Your task to perform on an android device: Open the calendar and show me this week's events? Image 0: 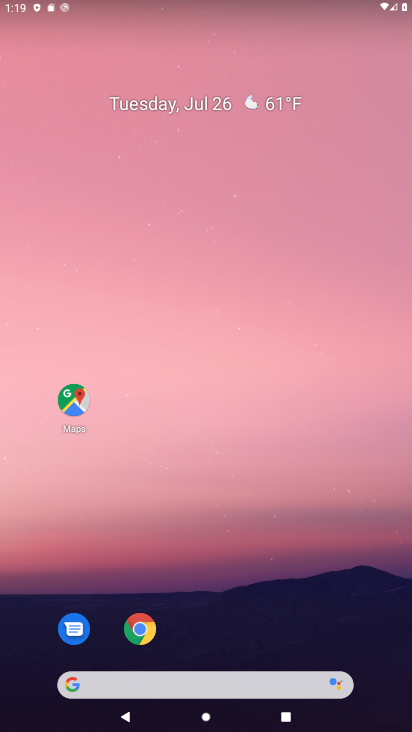
Step 0: click (205, 104)
Your task to perform on an android device: Open the calendar and show me this week's events? Image 1: 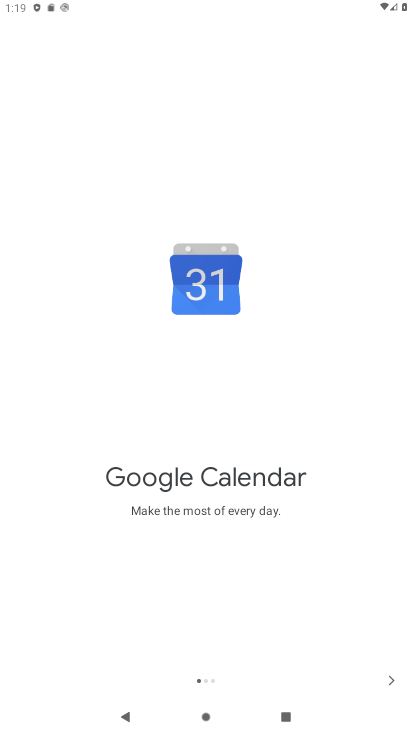
Step 1: click (385, 682)
Your task to perform on an android device: Open the calendar and show me this week's events? Image 2: 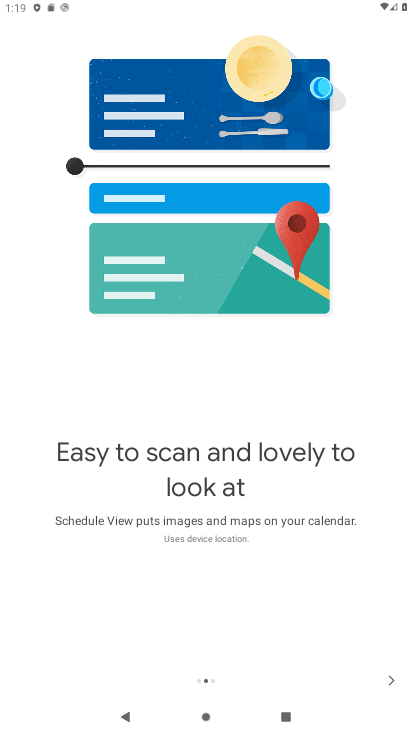
Step 2: click (385, 682)
Your task to perform on an android device: Open the calendar and show me this week's events? Image 3: 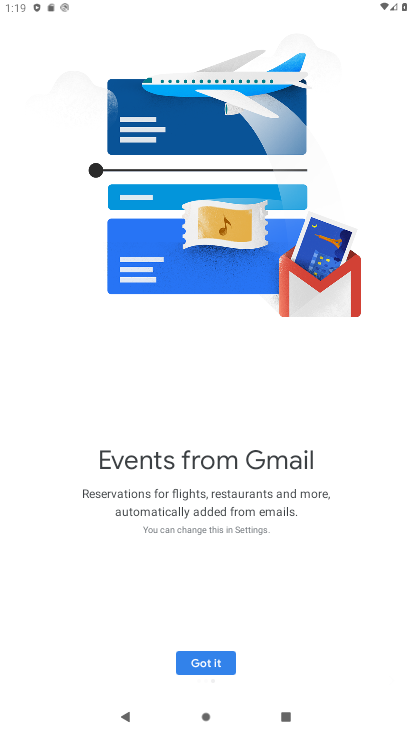
Step 3: click (385, 682)
Your task to perform on an android device: Open the calendar and show me this week's events? Image 4: 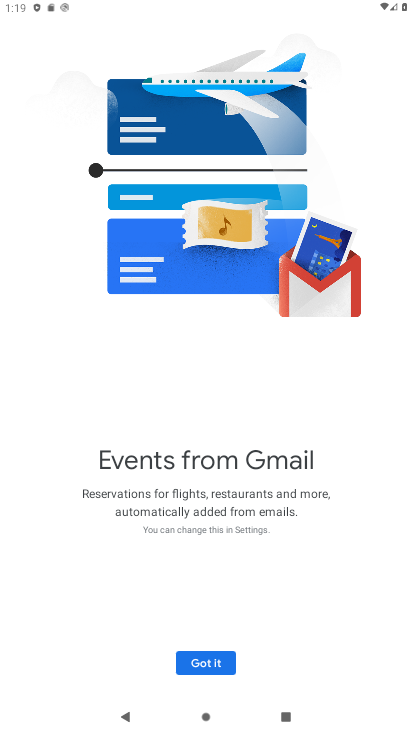
Step 4: click (385, 682)
Your task to perform on an android device: Open the calendar and show me this week's events? Image 5: 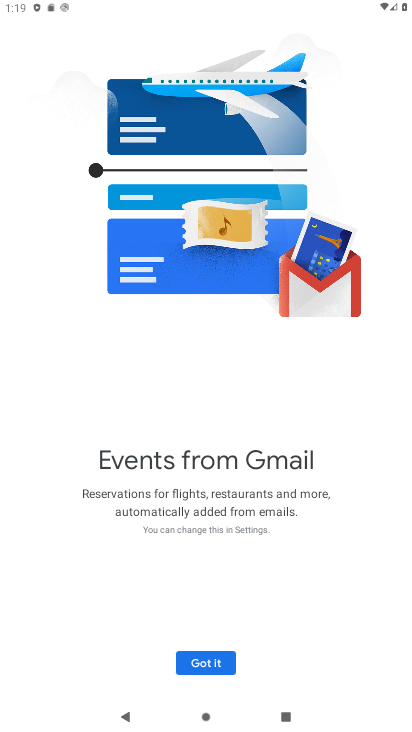
Step 5: click (385, 682)
Your task to perform on an android device: Open the calendar and show me this week's events? Image 6: 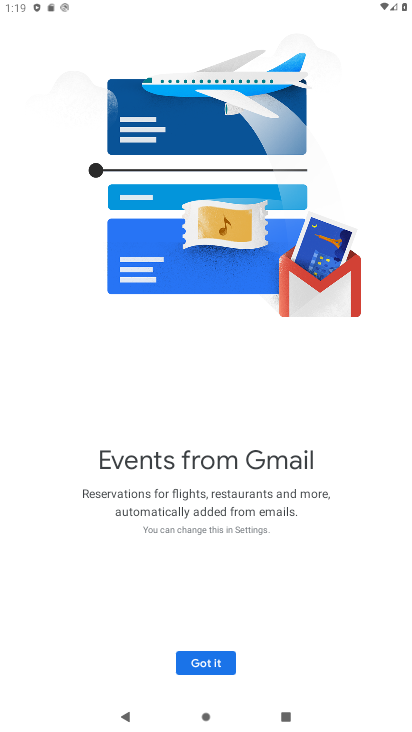
Step 6: click (183, 660)
Your task to perform on an android device: Open the calendar and show me this week's events? Image 7: 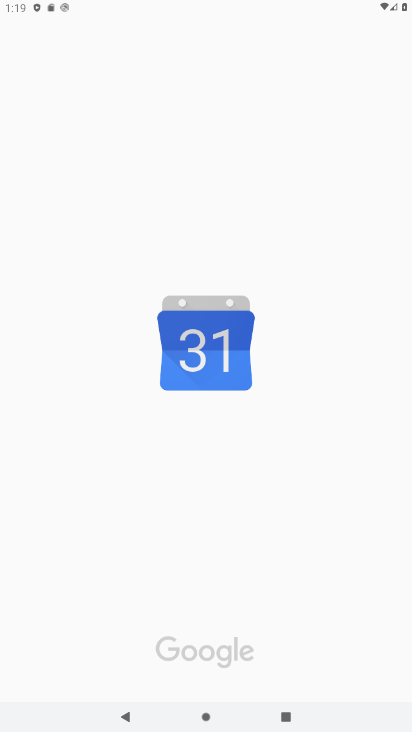
Step 7: click (183, 660)
Your task to perform on an android device: Open the calendar and show me this week's events? Image 8: 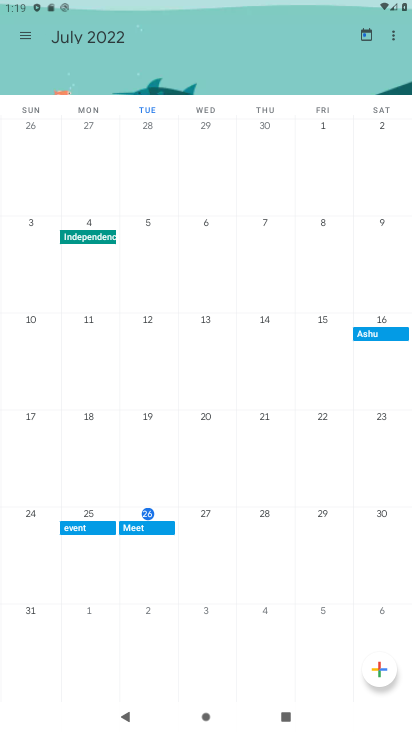
Step 8: task complete